Your task to perform on an android device: When is my next appointment? Image 0: 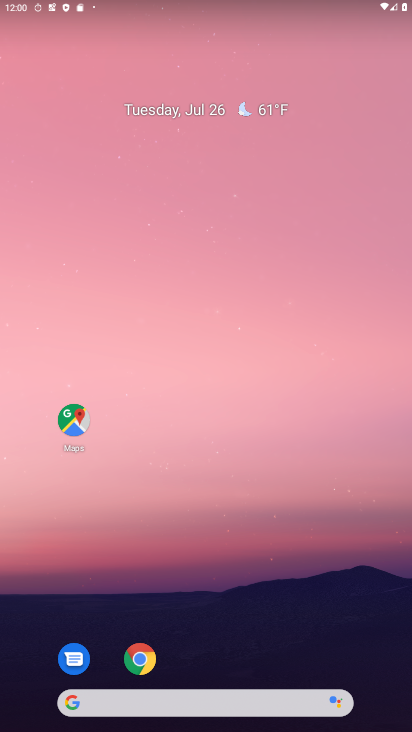
Step 0: drag from (34, 676) to (323, 133)
Your task to perform on an android device: When is my next appointment? Image 1: 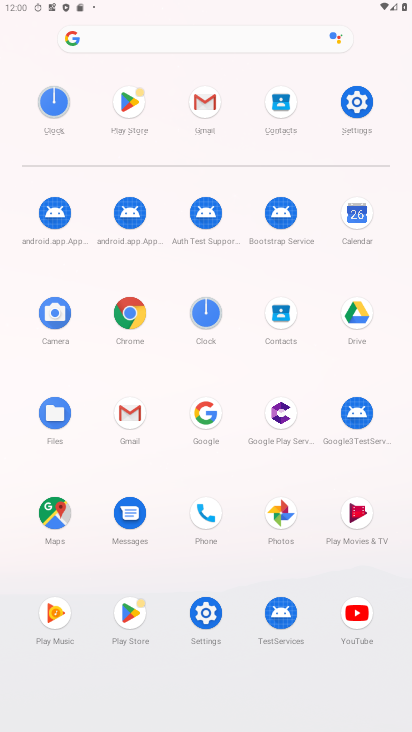
Step 1: click (356, 225)
Your task to perform on an android device: When is my next appointment? Image 2: 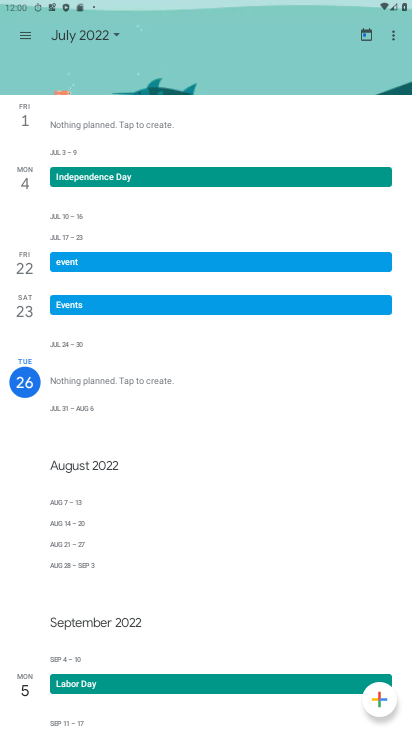
Step 2: click (115, 33)
Your task to perform on an android device: When is my next appointment? Image 3: 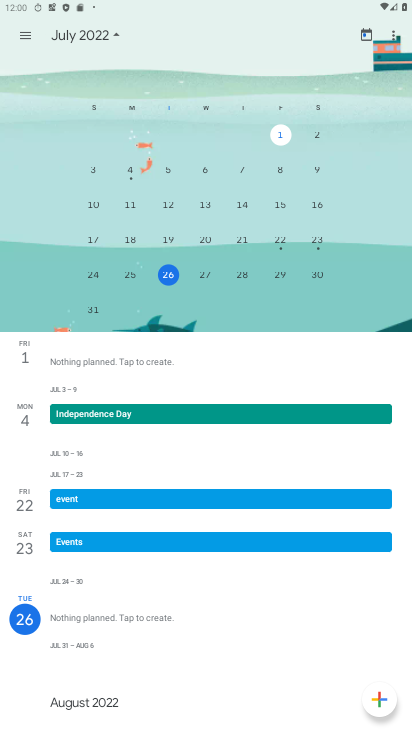
Step 3: task complete